Your task to perform on an android device: Open sound settings Image 0: 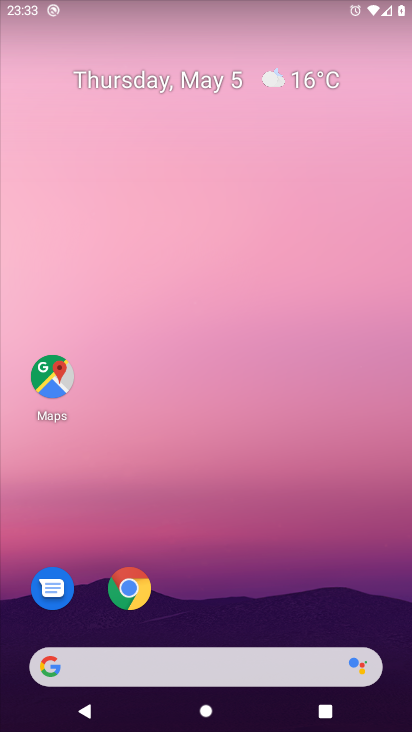
Step 0: drag from (266, 584) to (273, 152)
Your task to perform on an android device: Open sound settings Image 1: 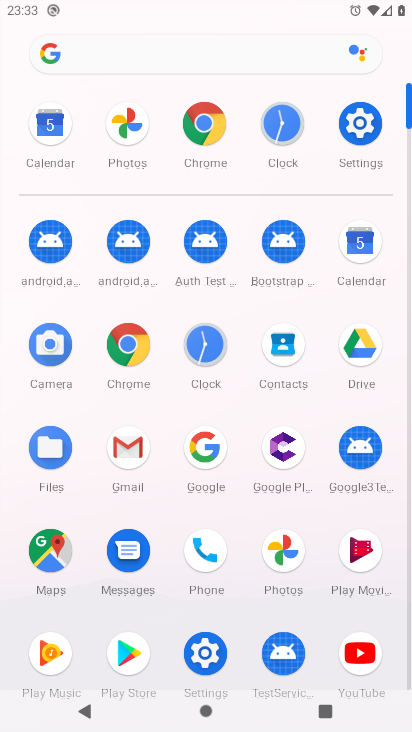
Step 1: click (367, 125)
Your task to perform on an android device: Open sound settings Image 2: 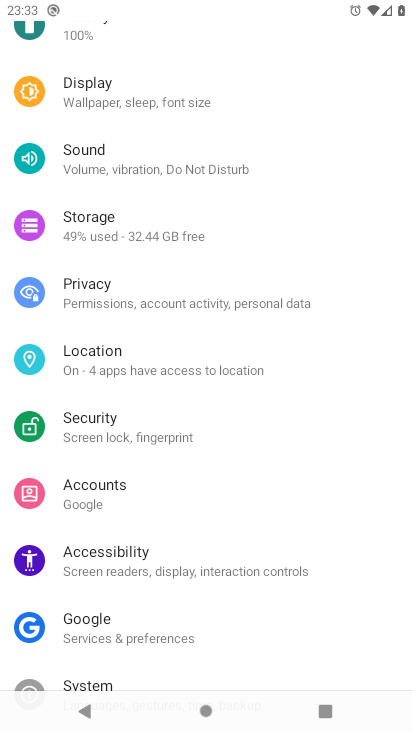
Step 2: click (207, 163)
Your task to perform on an android device: Open sound settings Image 3: 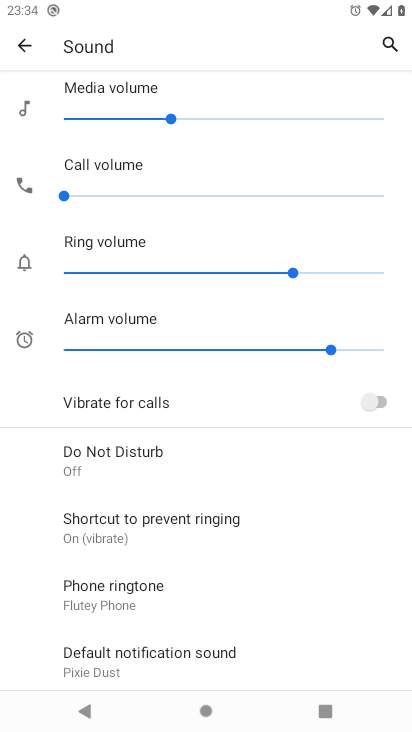
Step 3: task complete